Your task to perform on an android device: Do I have any events this weekend? Image 0: 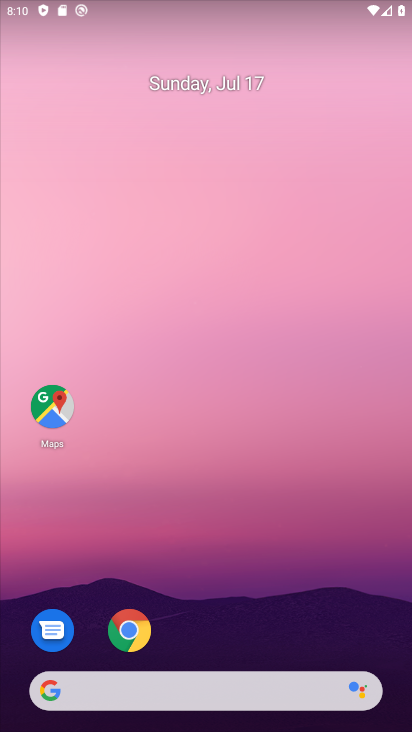
Step 0: drag from (337, 613) to (348, 166)
Your task to perform on an android device: Do I have any events this weekend? Image 1: 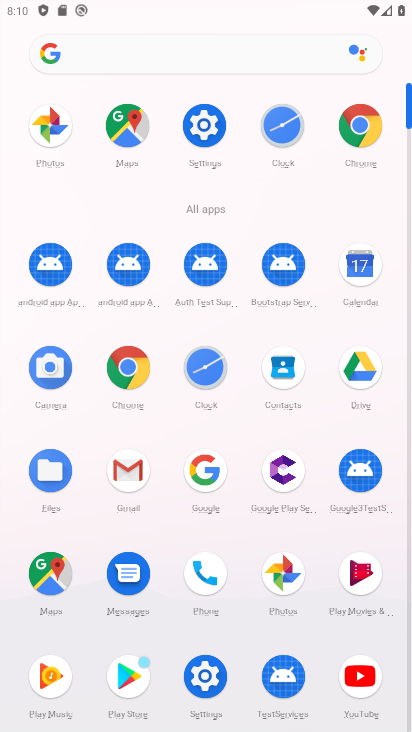
Step 1: click (357, 269)
Your task to perform on an android device: Do I have any events this weekend? Image 2: 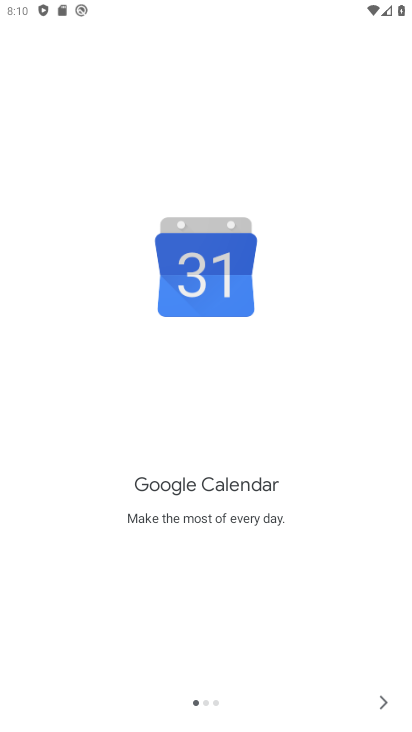
Step 2: click (382, 704)
Your task to perform on an android device: Do I have any events this weekend? Image 3: 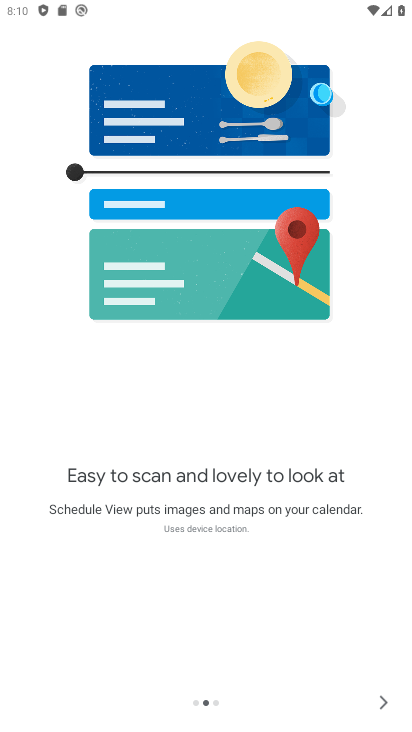
Step 3: click (382, 704)
Your task to perform on an android device: Do I have any events this weekend? Image 4: 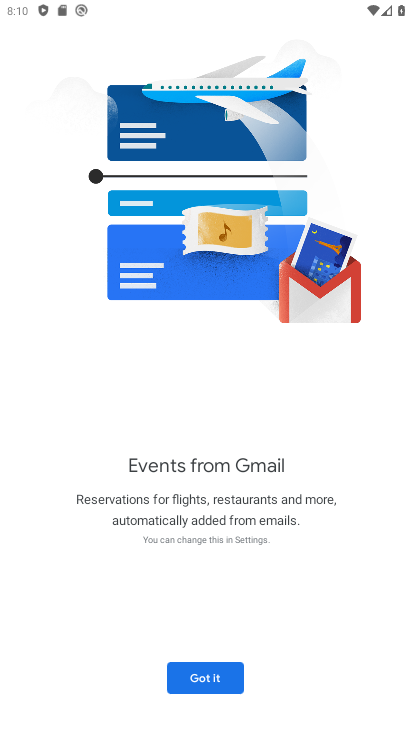
Step 4: click (233, 673)
Your task to perform on an android device: Do I have any events this weekend? Image 5: 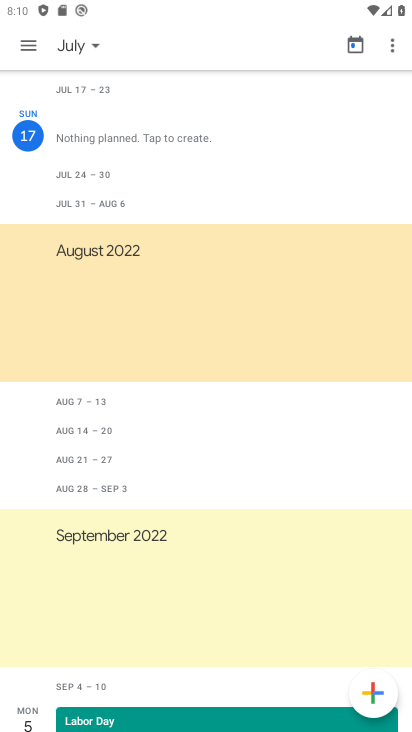
Step 5: click (93, 45)
Your task to perform on an android device: Do I have any events this weekend? Image 6: 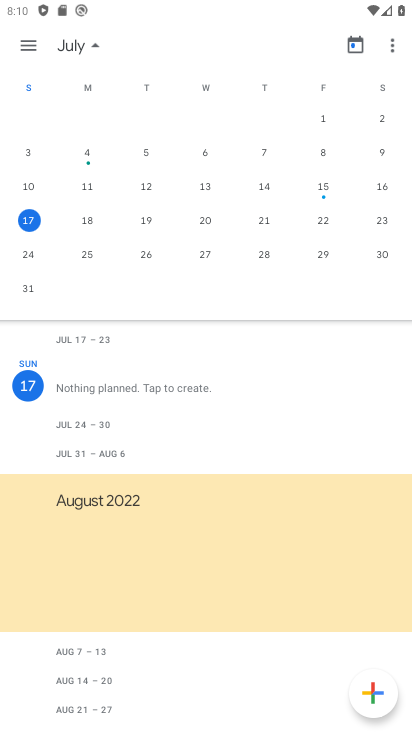
Step 6: click (88, 220)
Your task to perform on an android device: Do I have any events this weekend? Image 7: 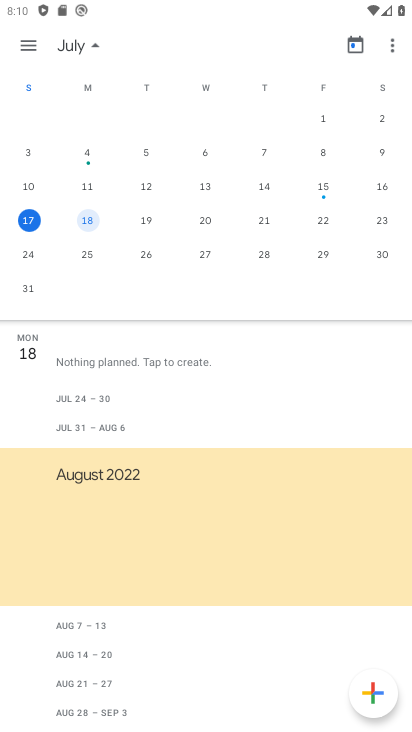
Step 7: task complete